Your task to perform on an android device: Search for a runner rug on Crate & Barrel Image 0: 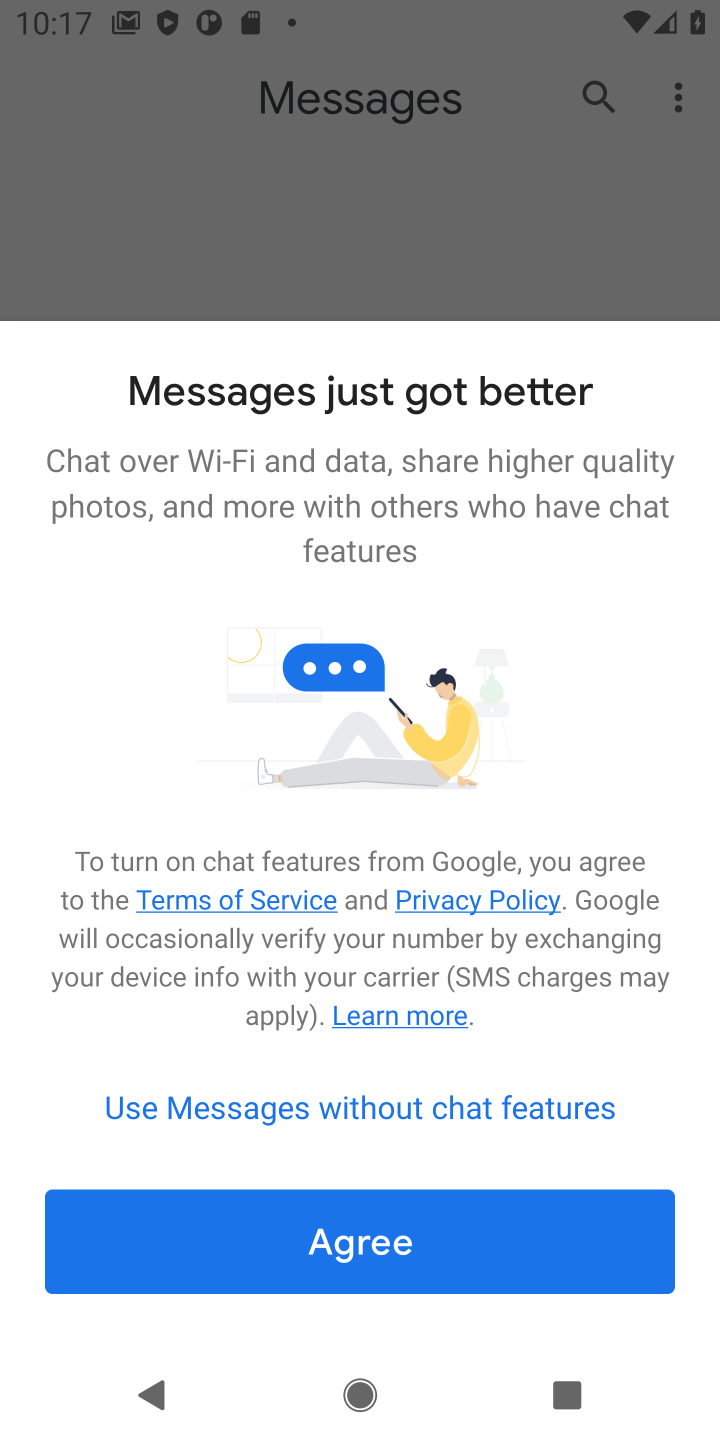
Step 0: press home button
Your task to perform on an android device: Search for a runner rug on Crate & Barrel Image 1: 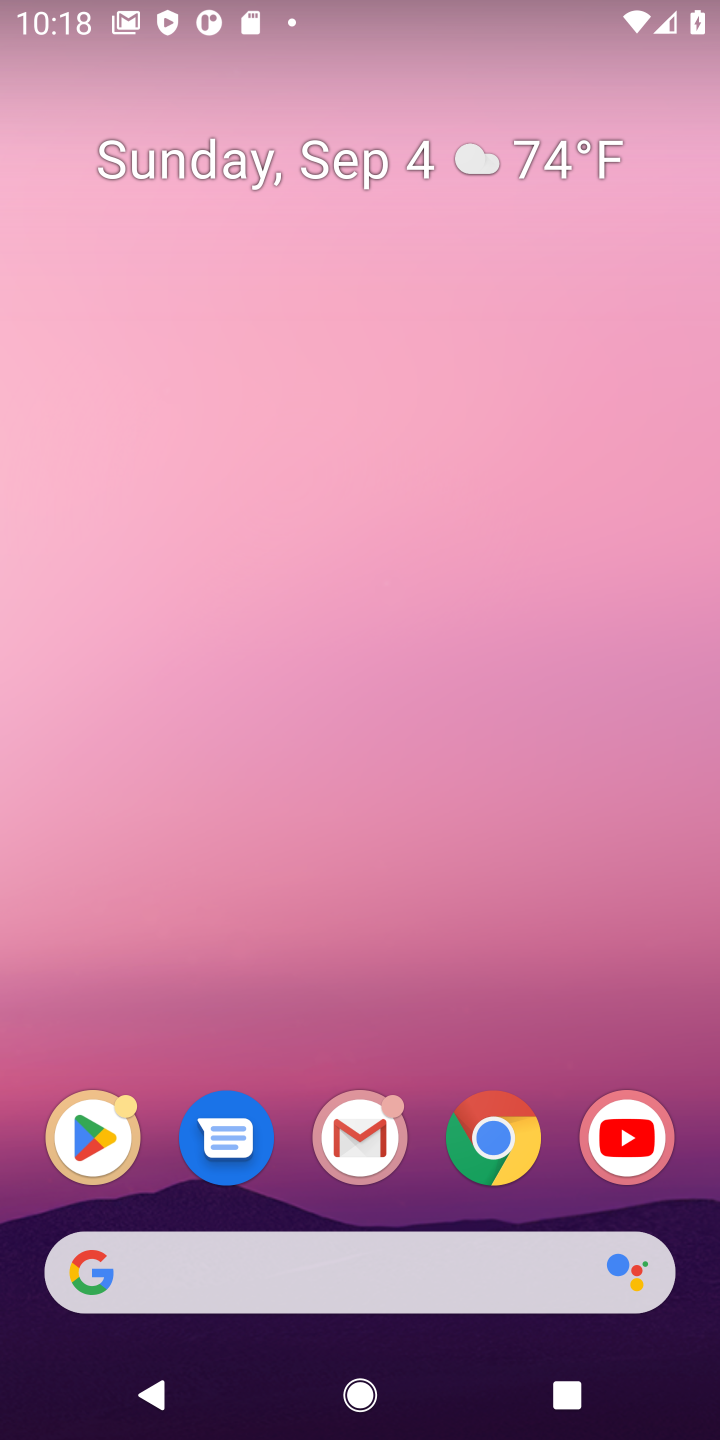
Step 1: click (481, 1117)
Your task to perform on an android device: Search for a runner rug on Crate & Barrel Image 2: 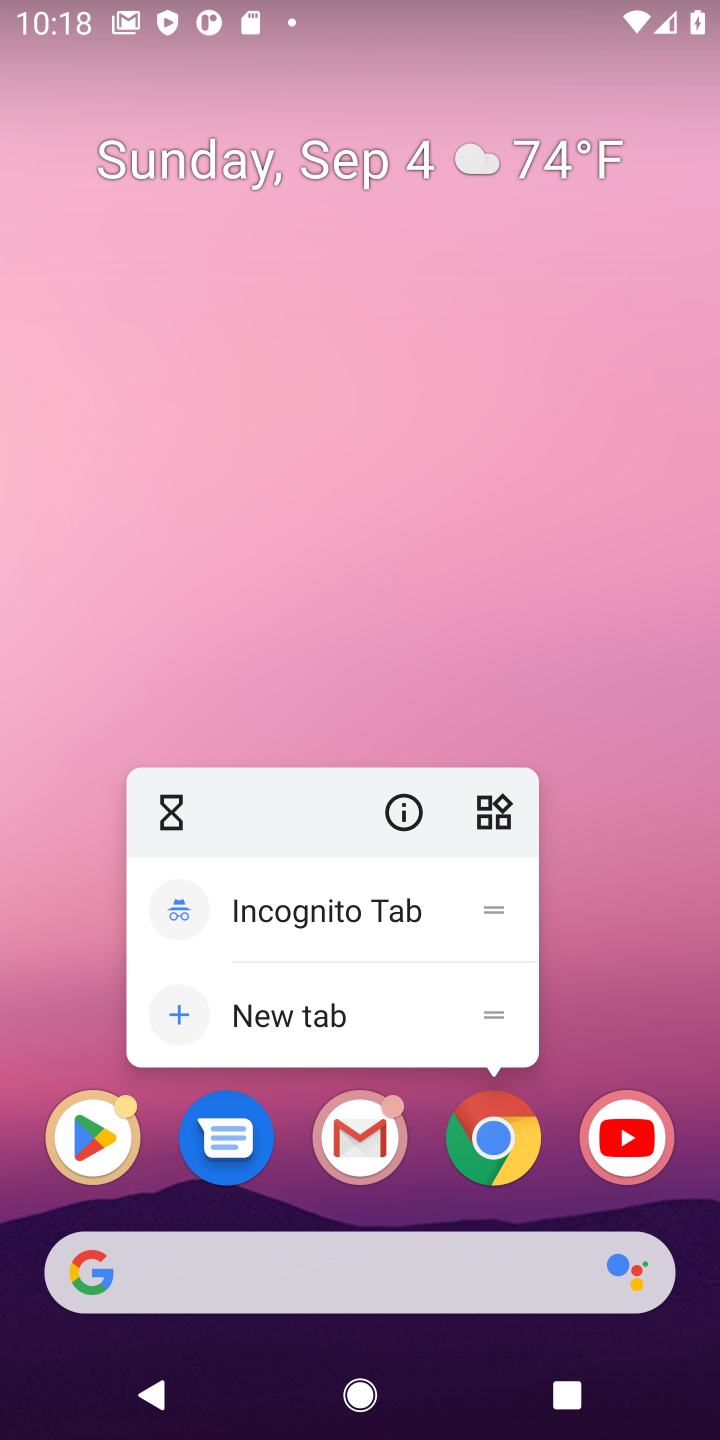
Step 2: click (480, 1150)
Your task to perform on an android device: Search for a runner rug on Crate & Barrel Image 3: 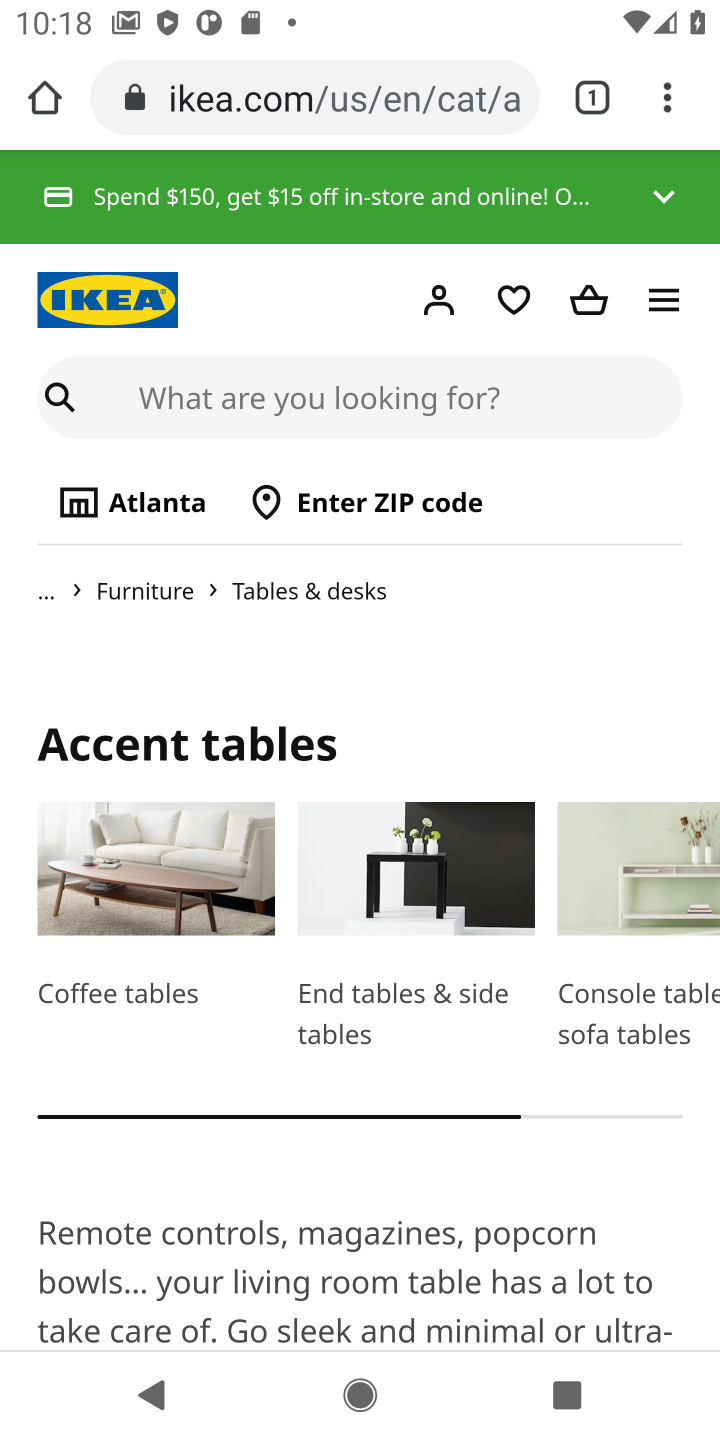
Step 3: click (293, 76)
Your task to perform on an android device: Search for a runner rug on Crate & Barrel Image 4: 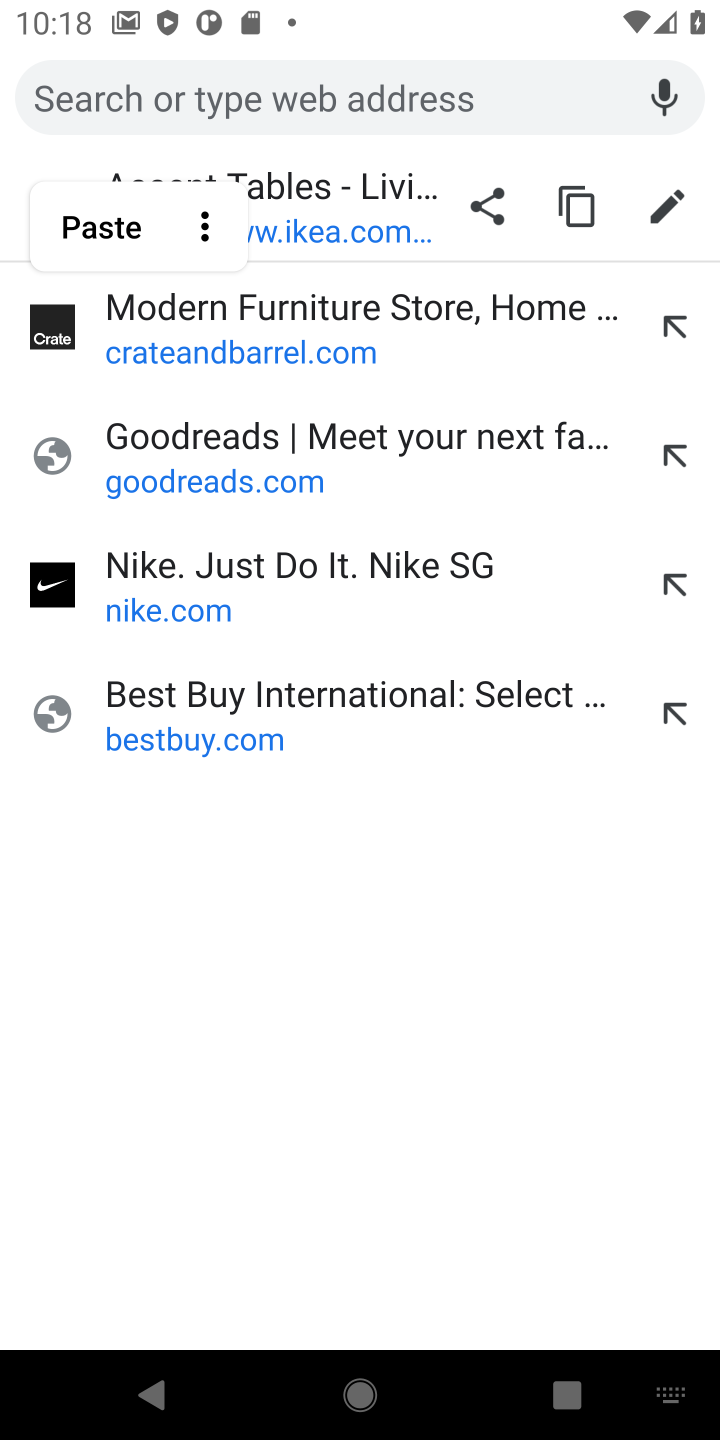
Step 4: type "crate and barrel"
Your task to perform on an android device: Search for a runner rug on Crate & Barrel Image 5: 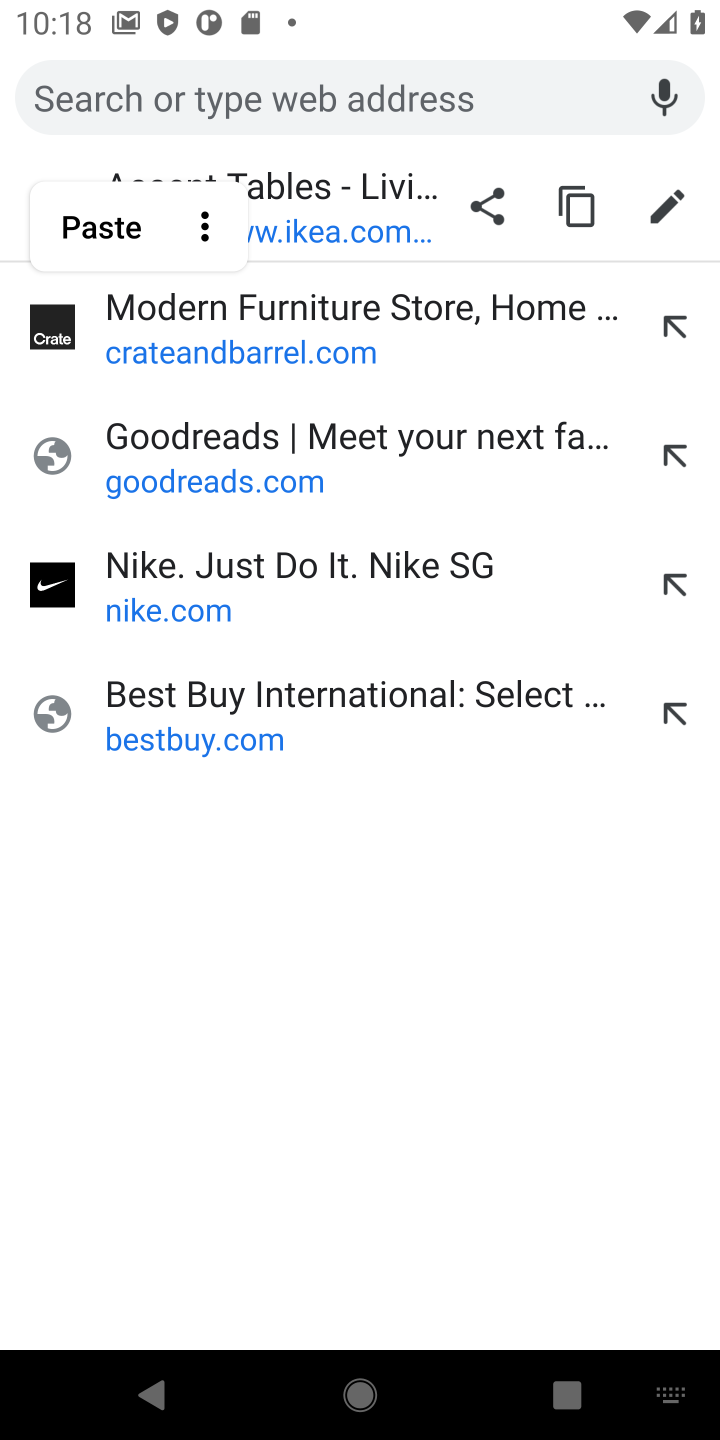
Step 5: click (431, 90)
Your task to perform on an android device: Search for a runner rug on Crate & Barrel Image 6: 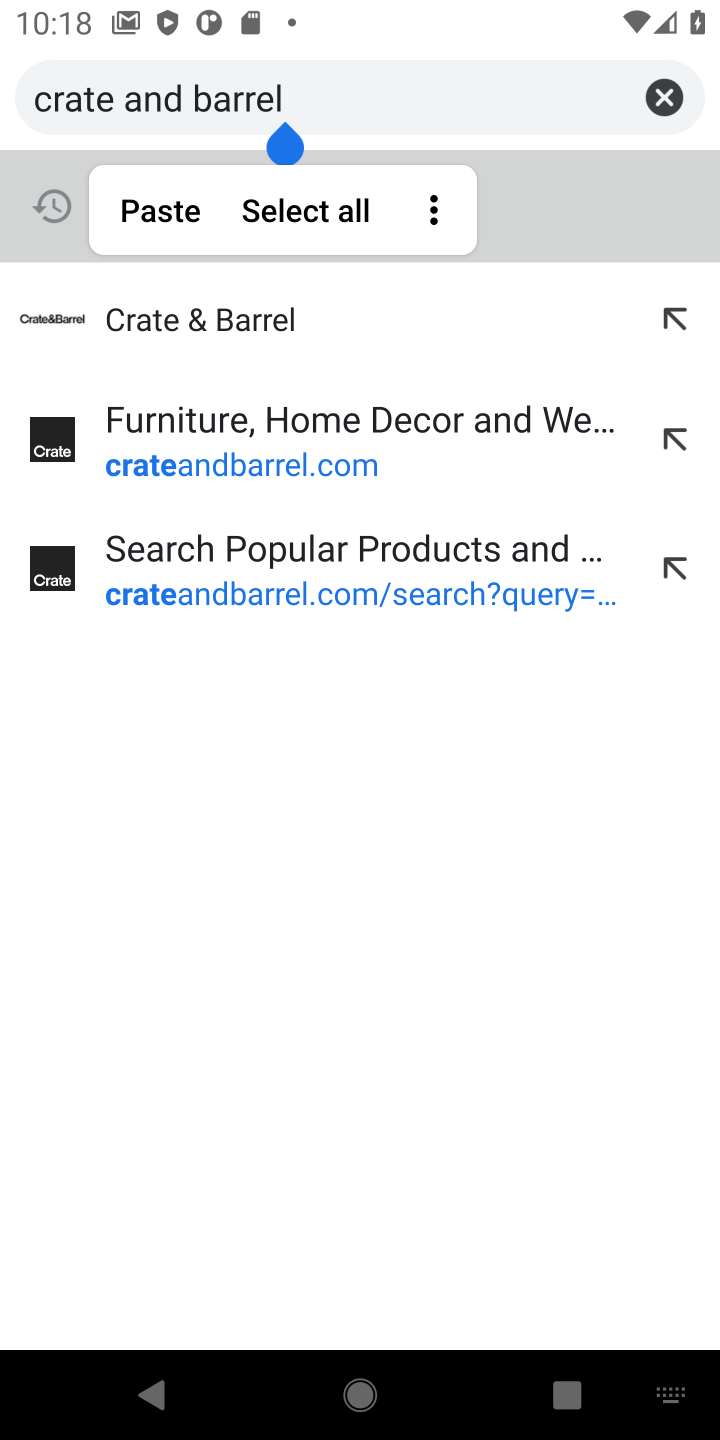
Step 6: press enter
Your task to perform on an android device: Search for a runner rug on Crate & Barrel Image 7: 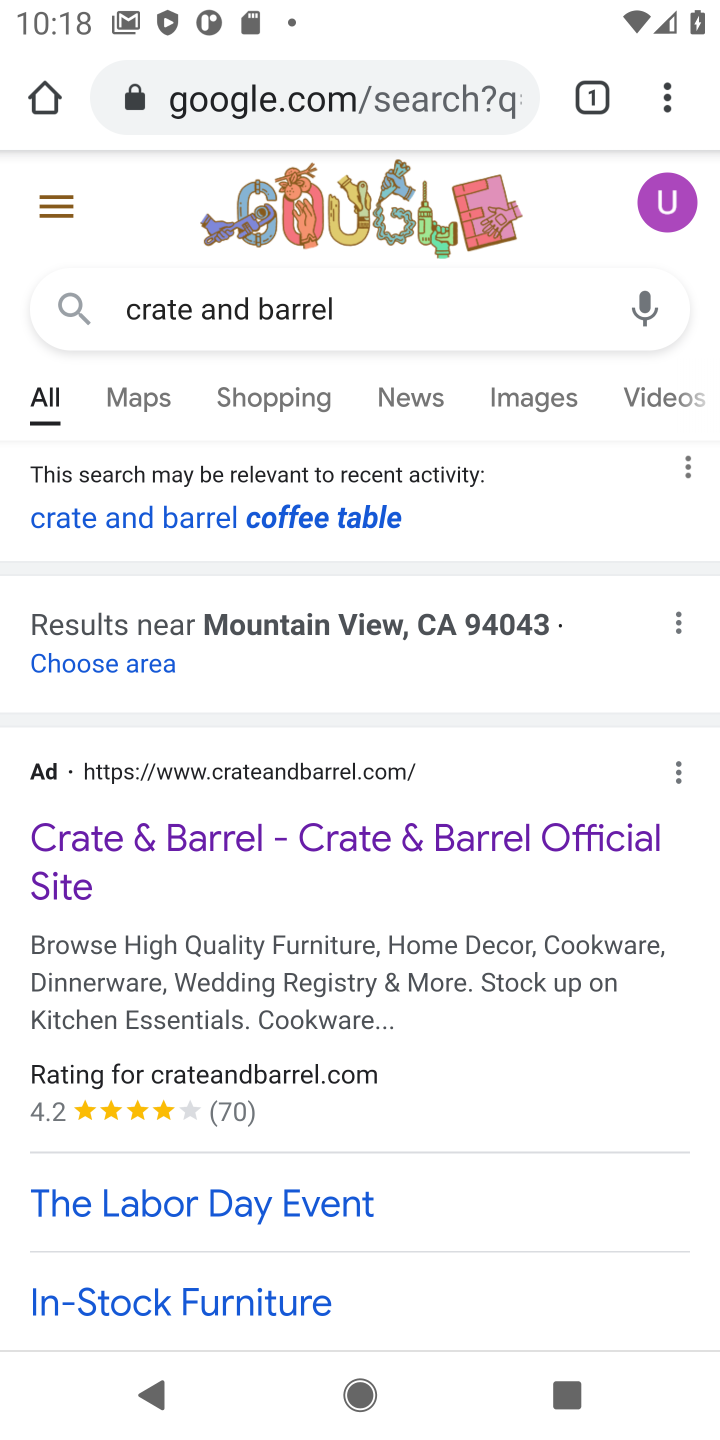
Step 7: click (345, 836)
Your task to perform on an android device: Search for a runner rug on Crate & Barrel Image 8: 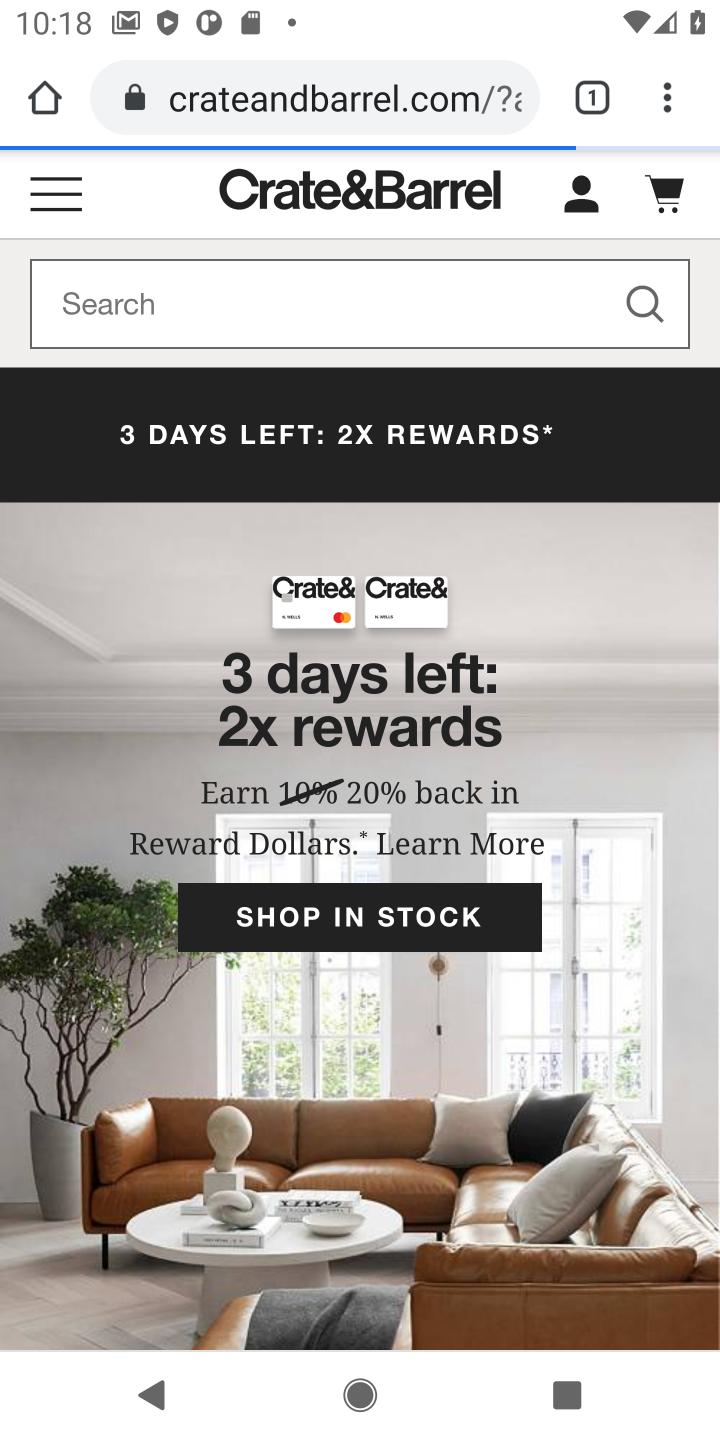
Step 8: click (390, 301)
Your task to perform on an android device: Search for a runner rug on Crate & Barrel Image 9: 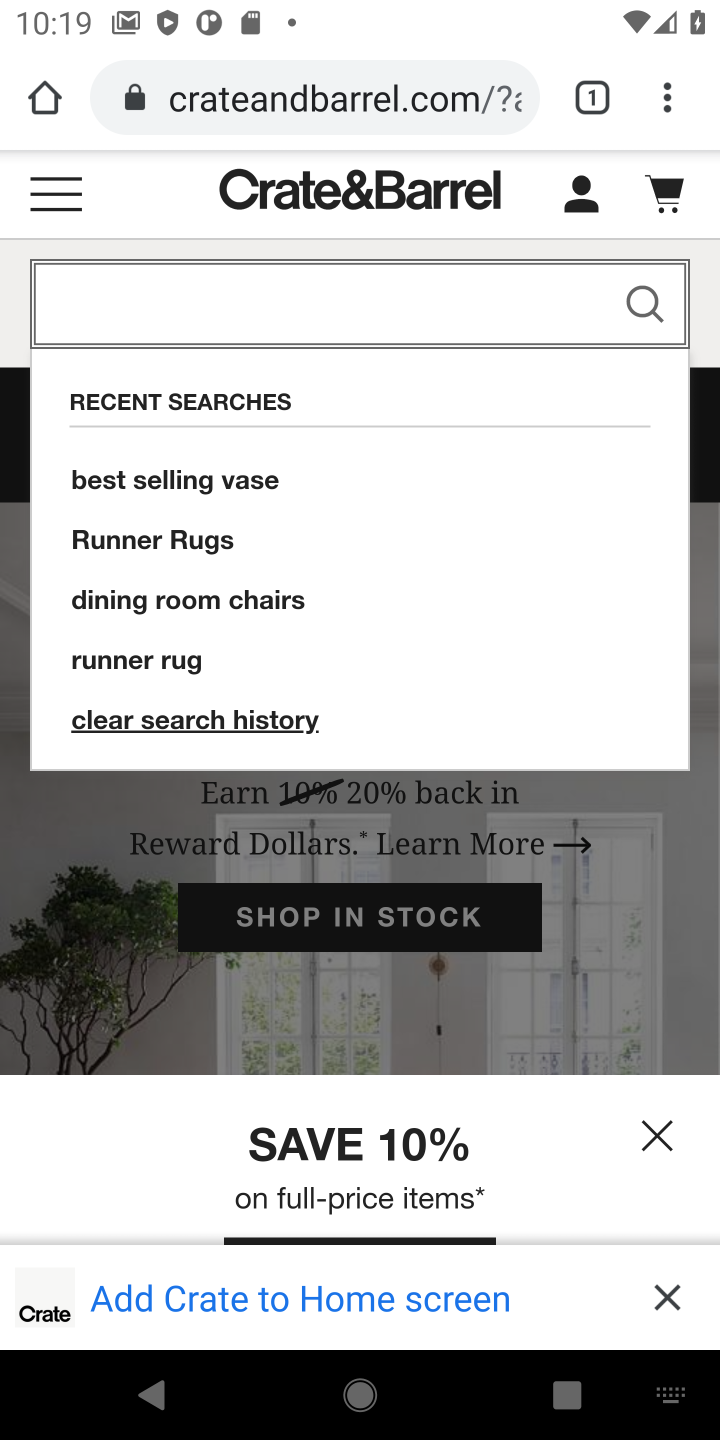
Step 9: type "runner rug"
Your task to perform on an android device: Search for a runner rug on Crate & Barrel Image 10: 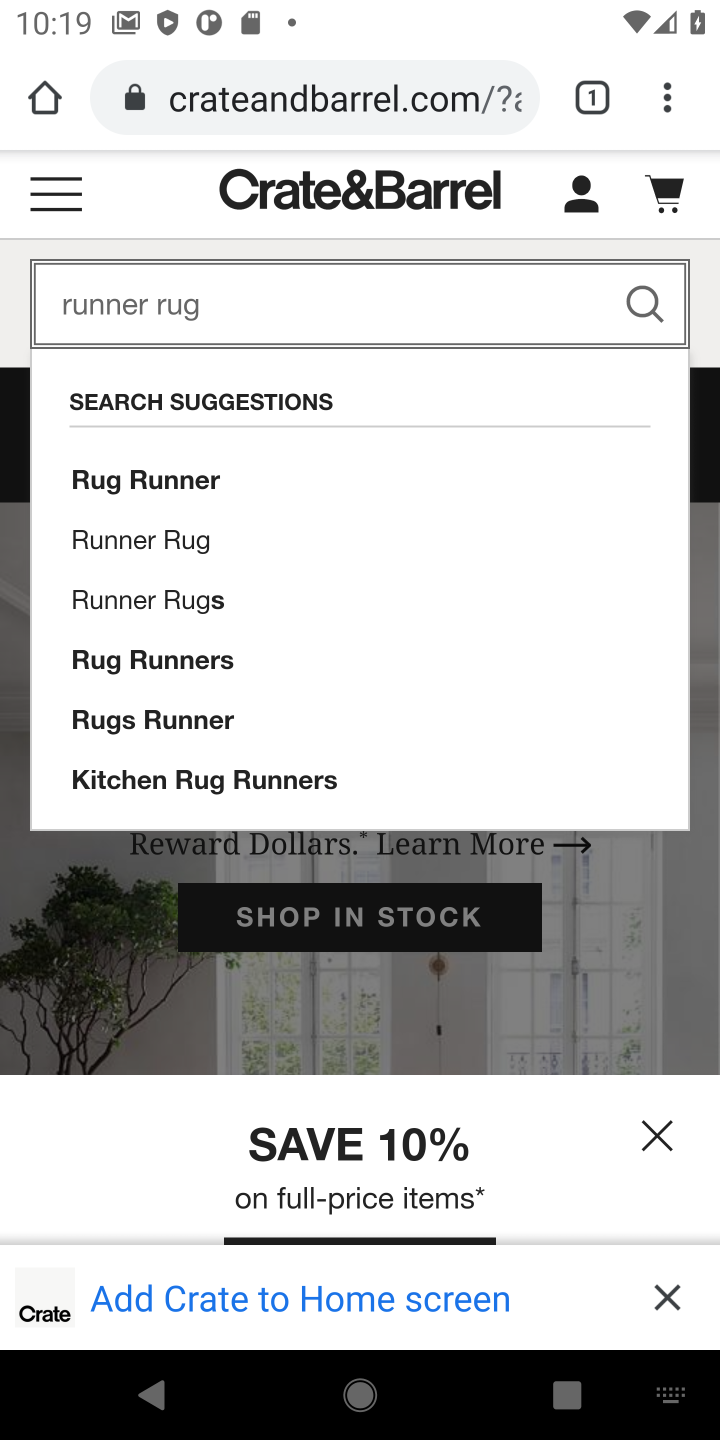
Step 10: press enter
Your task to perform on an android device: Search for a runner rug on Crate & Barrel Image 11: 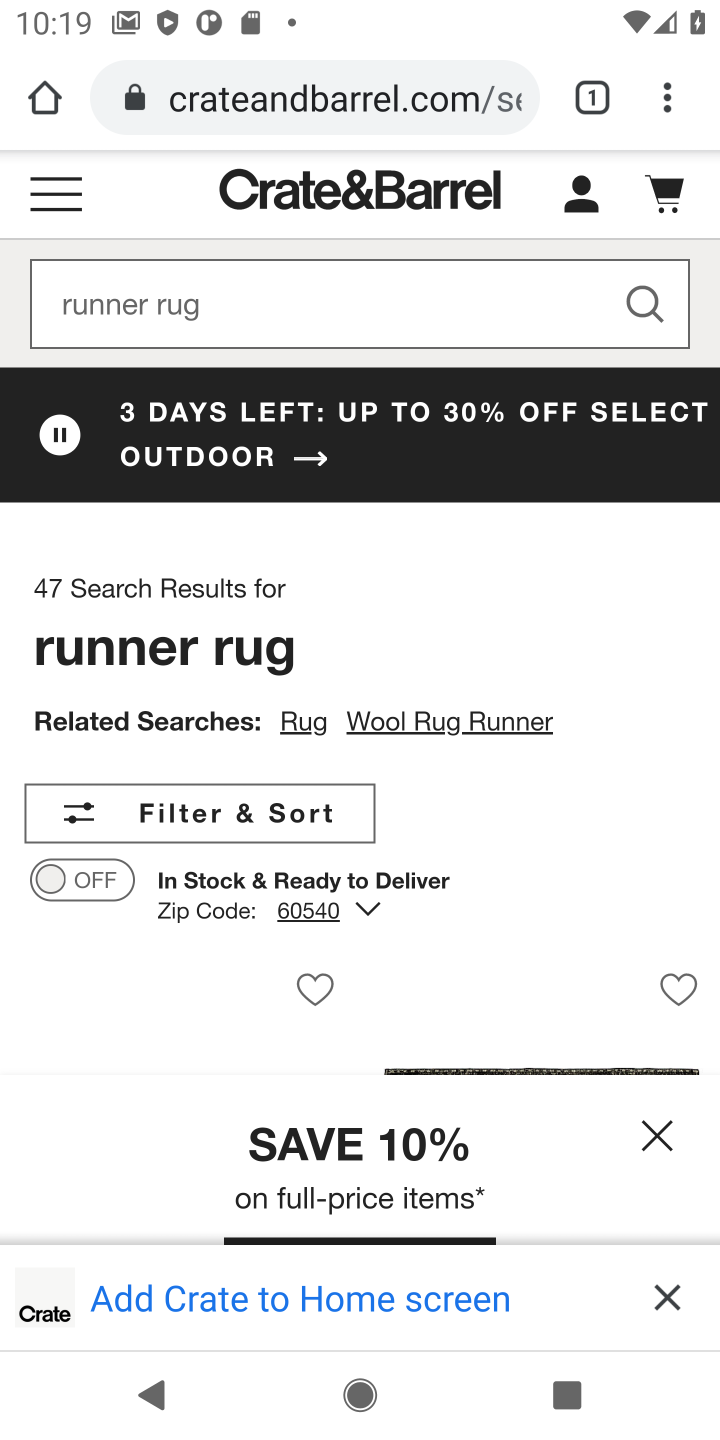
Step 11: task complete